Your task to perform on an android device: see creations saved in the google photos Image 0: 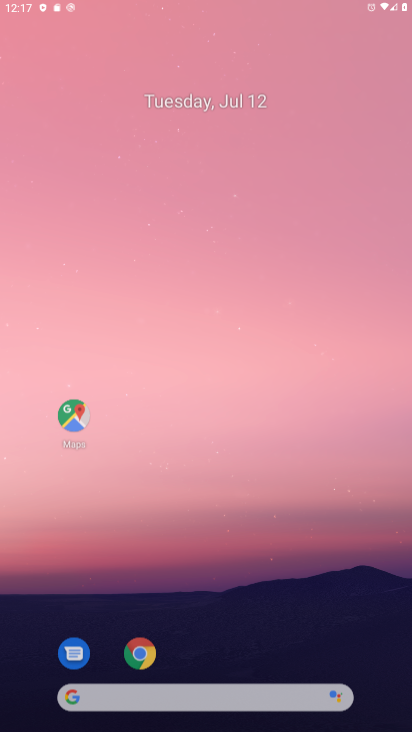
Step 0: click (238, 242)
Your task to perform on an android device: see creations saved in the google photos Image 1: 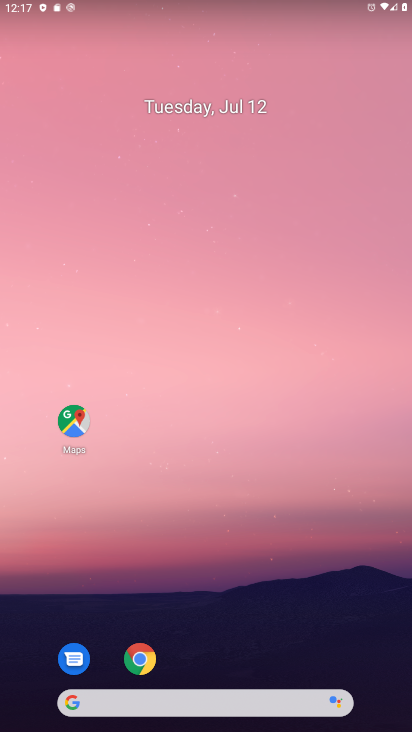
Step 1: drag from (202, 647) to (296, 114)
Your task to perform on an android device: see creations saved in the google photos Image 2: 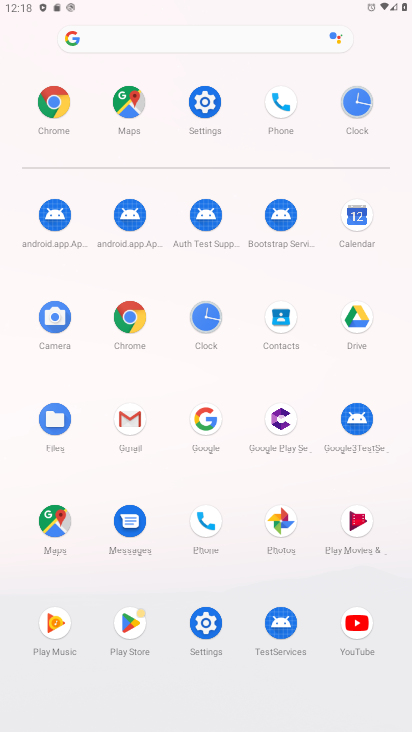
Step 2: click (286, 523)
Your task to perform on an android device: see creations saved in the google photos Image 3: 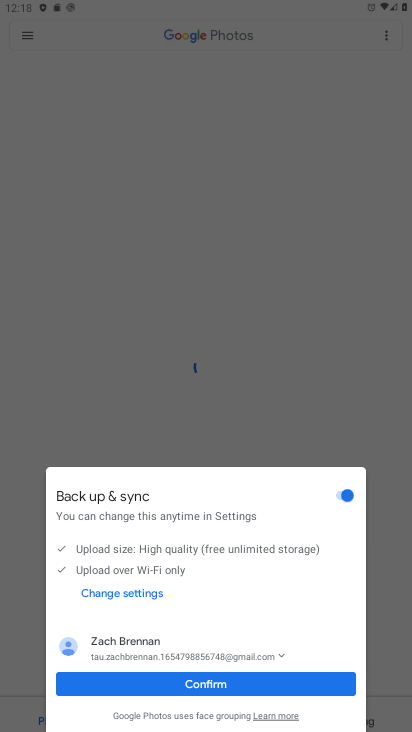
Step 3: drag from (190, 545) to (199, 340)
Your task to perform on an android device: see creations saved in the google photos Image 4: 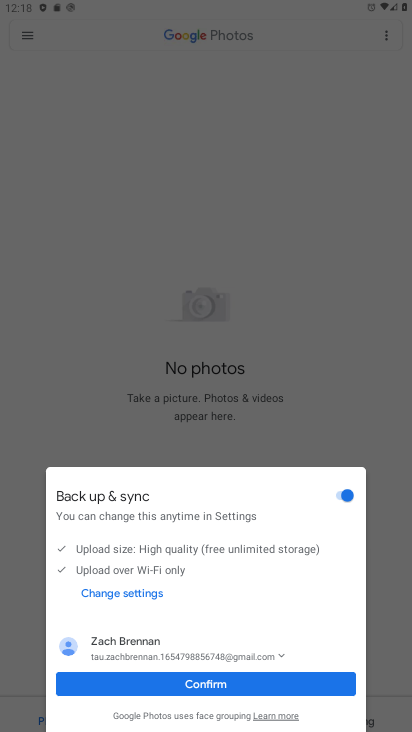
Step 4: press home button
Your task to perform on an android device: see creations saved in the google photos Image 5: 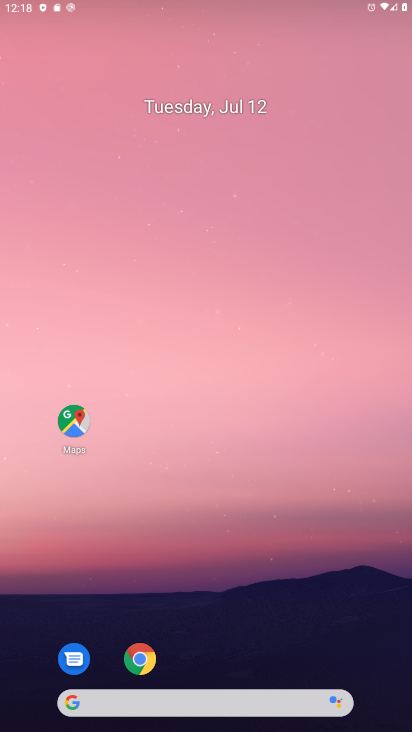
Step 5: drag from (201, 592) to (205, 218)
Your task to perform on an android device: see creations saved in the google photos Image 6: 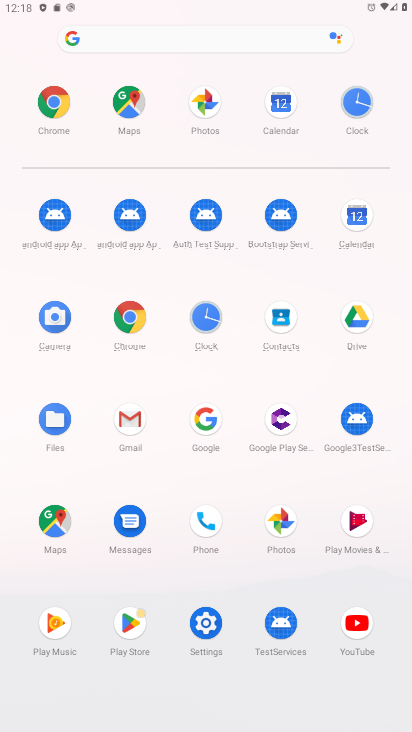
Step 6: click (271, 525)
Your task to perform on an android device: see creations saved in the google photos Image 7: 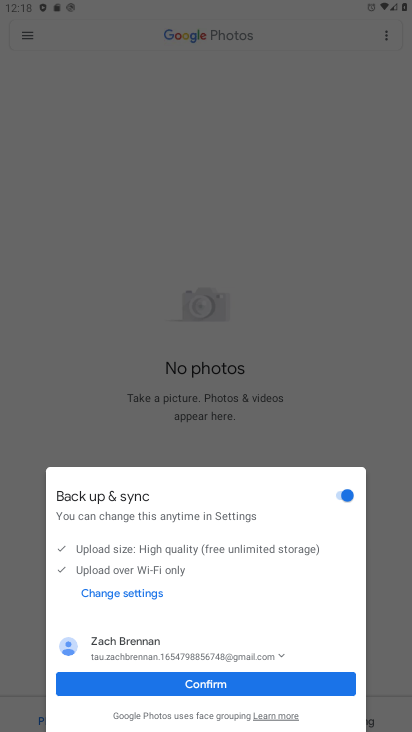
Step 7: press home button
Your task to perform on an android device: see creations saved in the google photos Image 8: 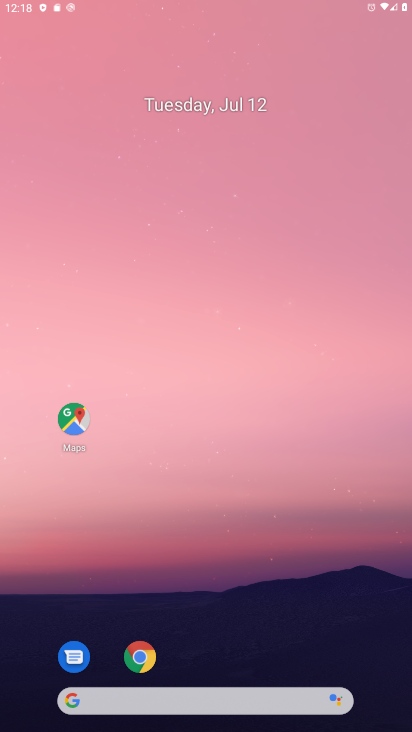
Step 8: press home button
Your task to perform on an android device: see creations saved in the google photos Image 9: 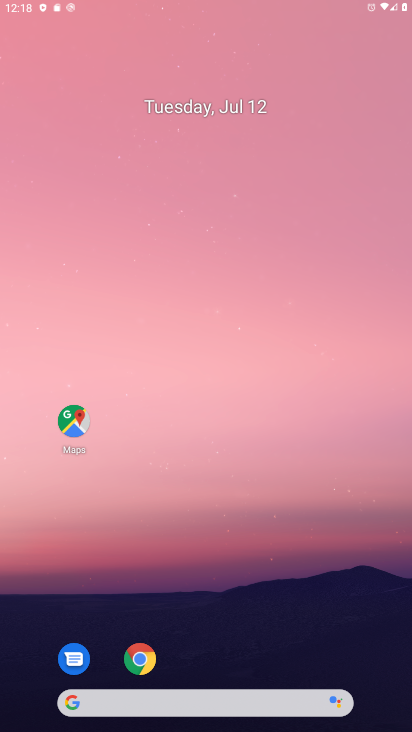
Step 9: click (367, 13)
Your task to perform on an android device: see creations saved in the google photos Image 10: 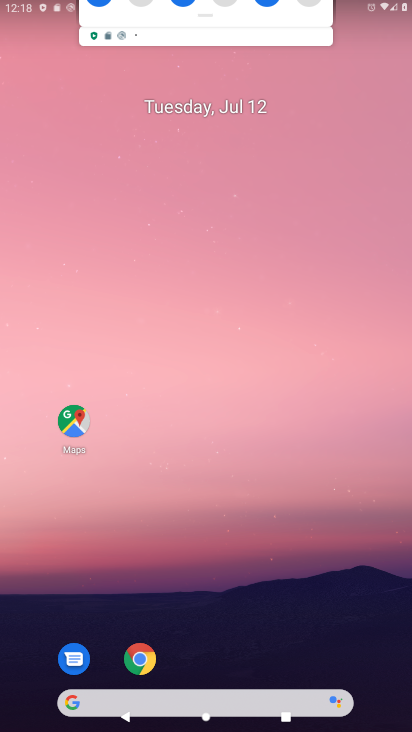
Step 10: drag from (192, 676) to (233, 222)
Your task to perform on an android device: see creations saved in the google photos Image 11: 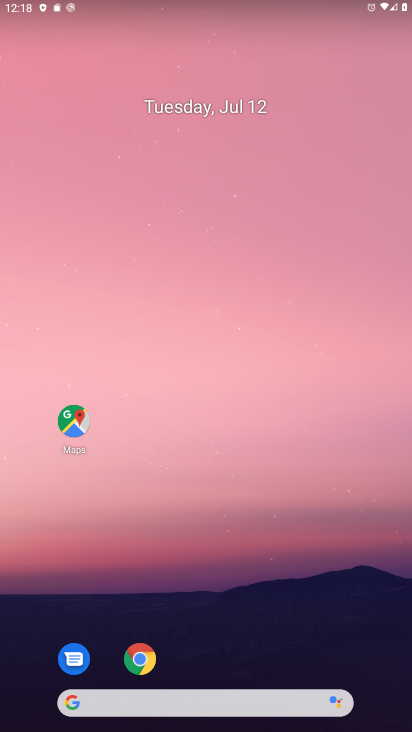
Step 11: drag from (177, 651) to (246, 104)
Your task to perform on an android device: see creations saved in the google photos Image 12: 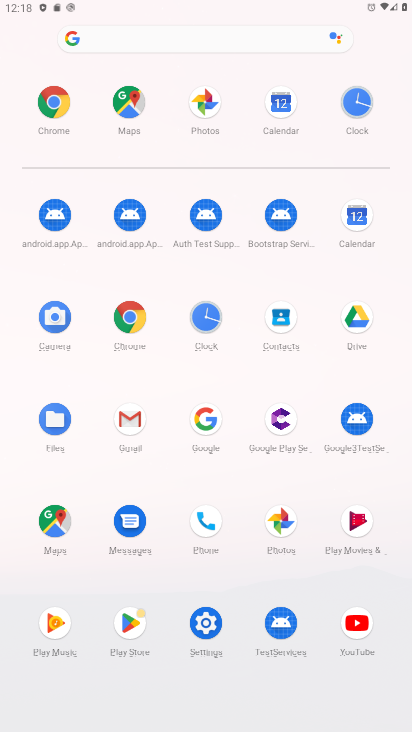
Step 12: click (290, 527)
Your task to perform on an android device: see creations saved in the google photos Image 13: 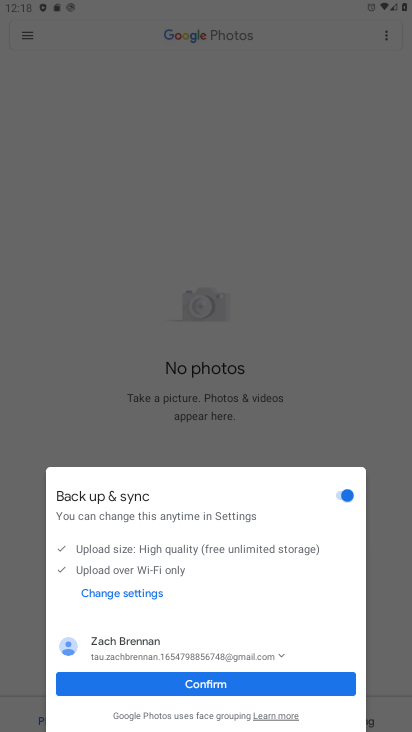
Step 13: click (245, 682)
Your task to perform on an android device: see creations saved in the google photos Image 14: 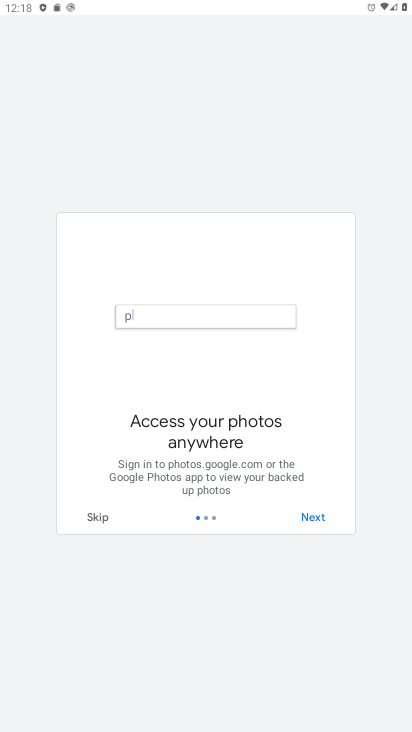
Step 14: drag from (245, 588) to (307, 146)
Your task to perform on an android device: see creations saved in the google photos Image 15: 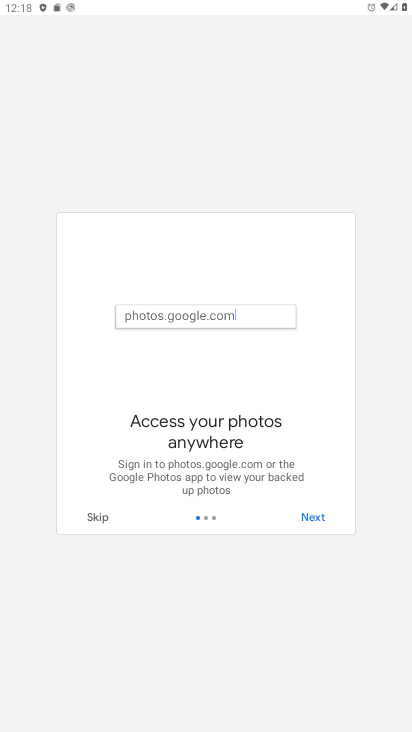
Step 15: click (301, 517)
Your task to perform on an android device: see creations saved in the google photos Image 16: 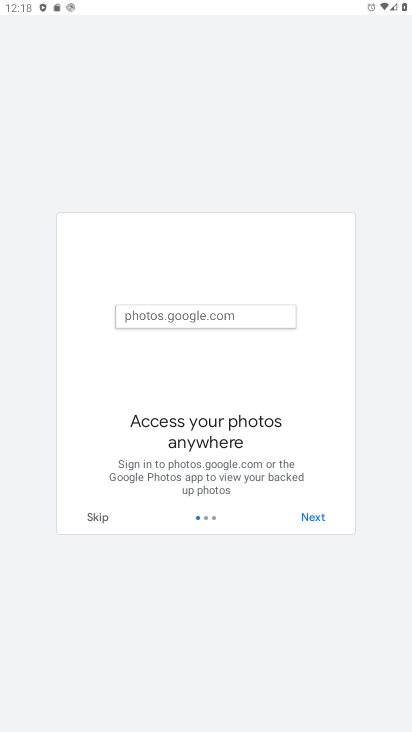
Step 16: click (304, 516)
Your task to perform on an android device: see creations saved in the google photos Image 17: 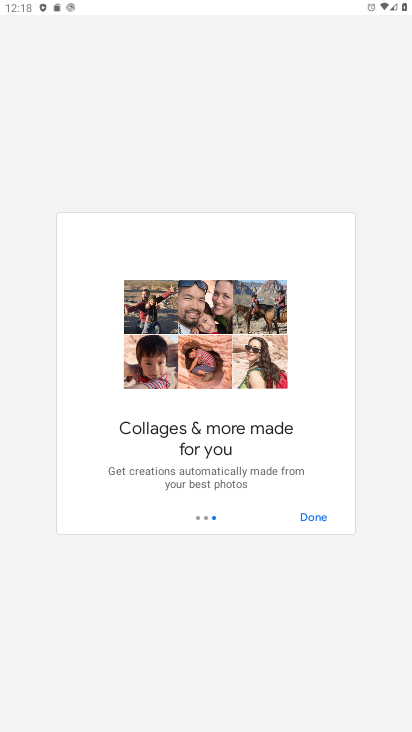
Step 17: click (316, 523)
Your task to perform on an android device: see creations saved in the google photos Image 18: 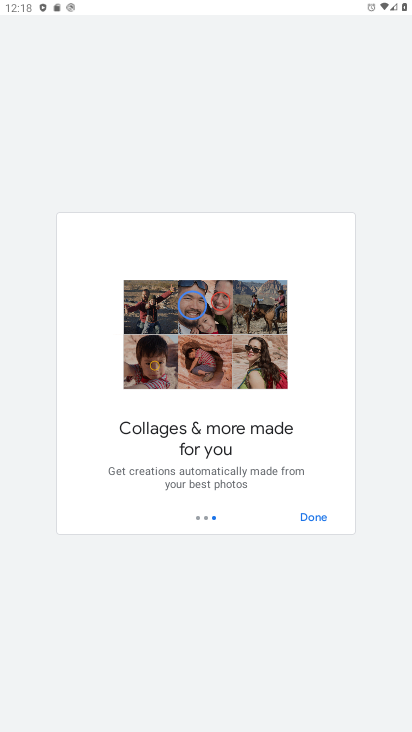
Step 18: click (316, 521)
Your task to perform on an android device: see creations saved in the google photos Image 19: 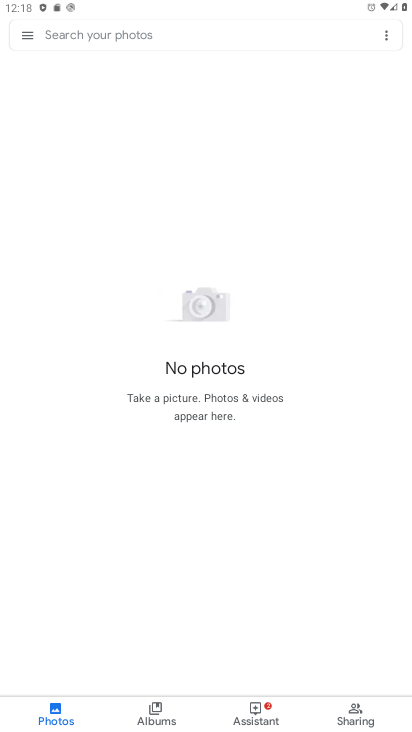
Step 19: drag from (183, 581) to (230, 192)
Your task to perform on an android device: see creations saved in the google photos Image 20: 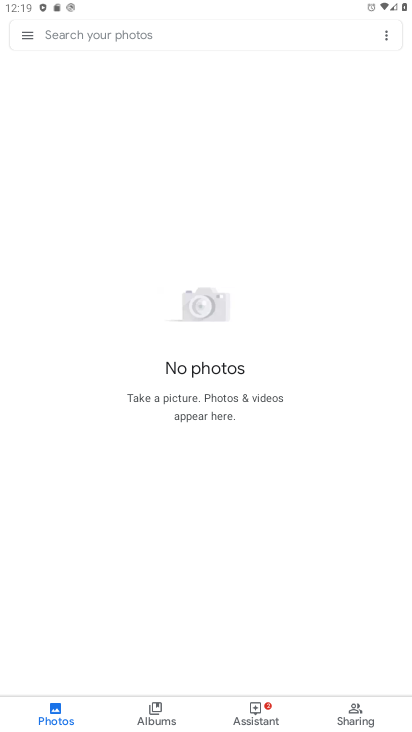
Step 20: click (25, 35)
Your task to perform on an android device: see creations saved in the google photos Image 21: 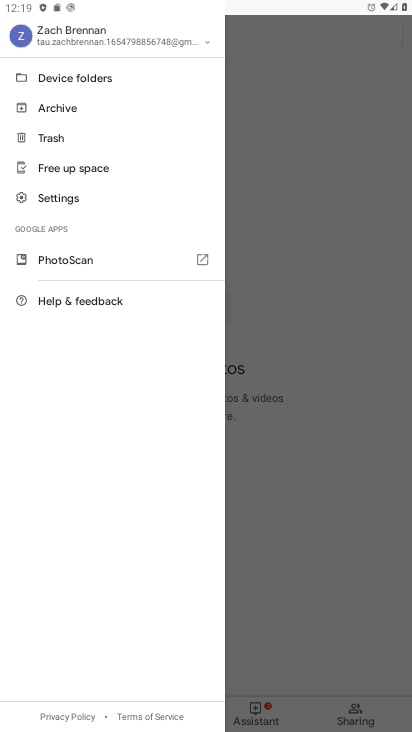
Step 21: click (359, 93)
Your task to perform on an android device: see creations saved in the google photos Image 22: 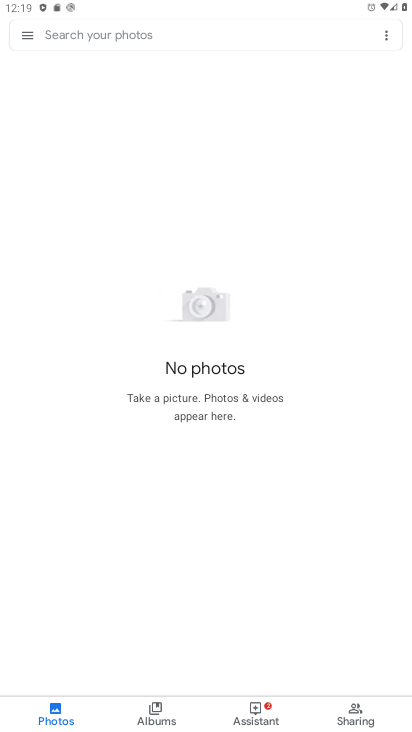
Step 22: click (128, 720)
Your task to perform on an android device: see creations saved in the google photos Image 23: 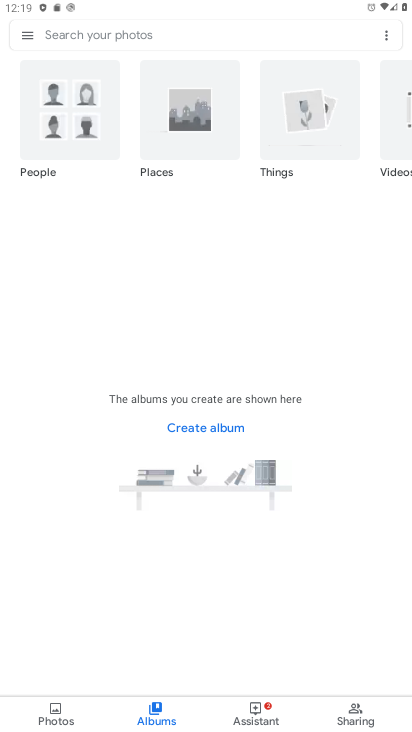
Step 23: click (146, 29)
Your task to perform on an android device: see creations saved in the google photos Image 24: 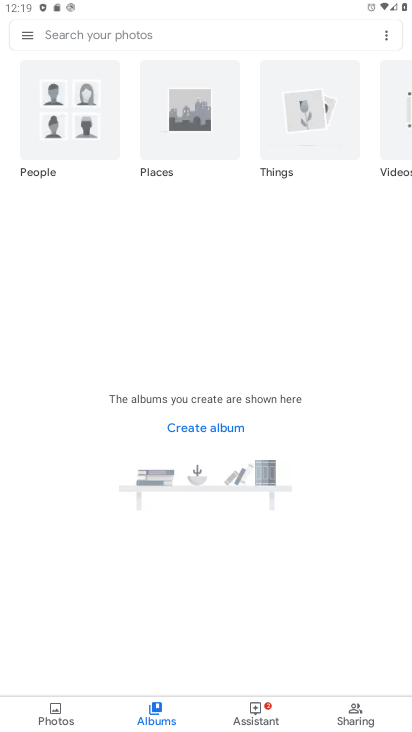
Step 24: click (146, 29)
Your task to perform on an android device: see creations saved in the google photos Image 25: 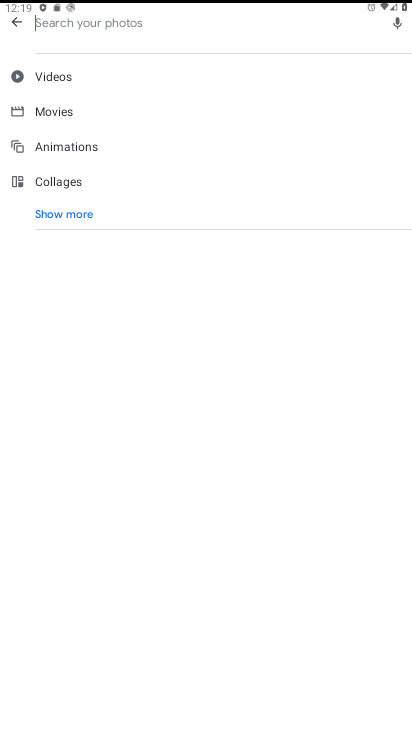
Step 25: click (118, 34)
Your task to perform on an android device: see creations saved in the google photos Image 26: 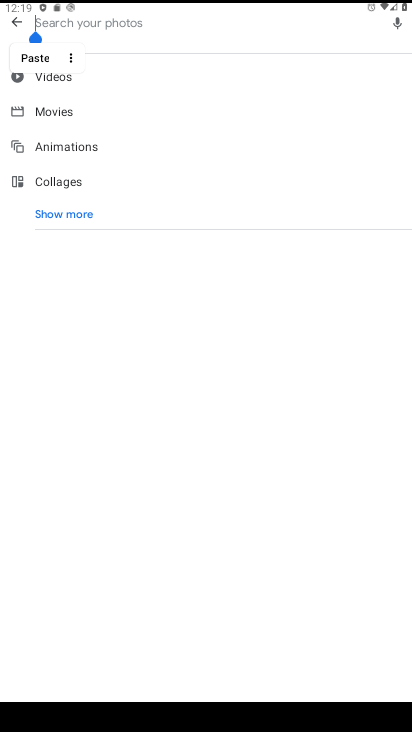
Step 26: click (38, 209)
Your task to perform on an android device: see creations saved in the google photos Image 27: 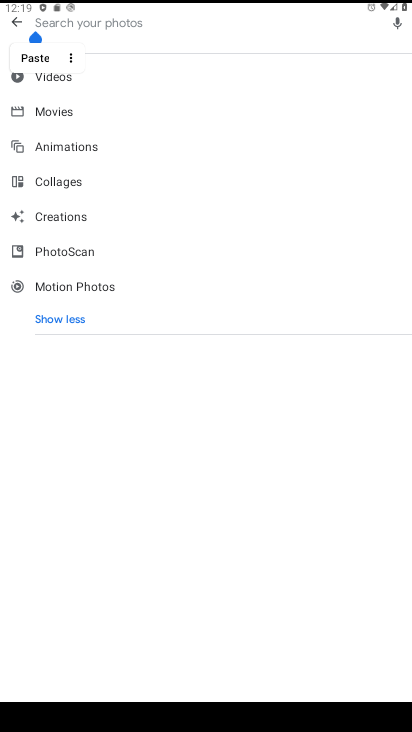
Step 27: click (46, 219)
Your task to perform on an android device: see creations saved in the google photos Image 28: 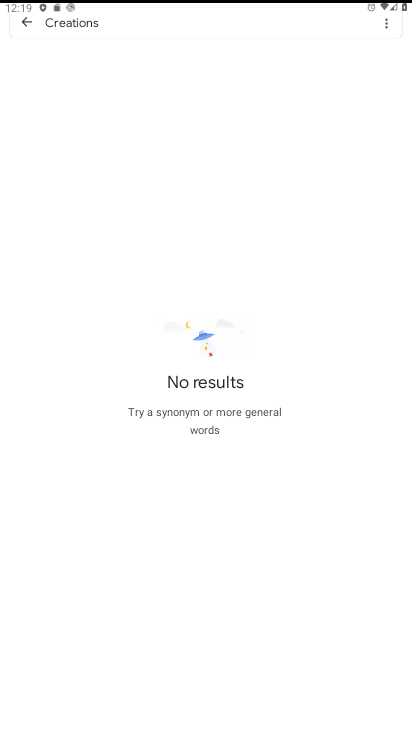
Step 28: task complete